Your task to perform on an android device: What is the news today? Image 0: 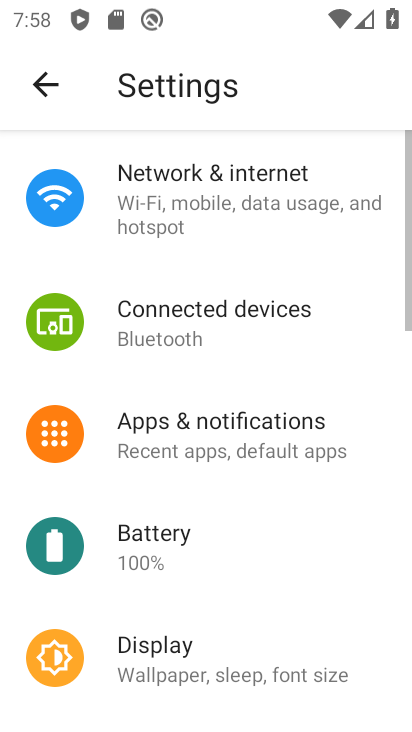
Step 0: press home button
Your task to perform on an android device: What is the news today? Image 1: 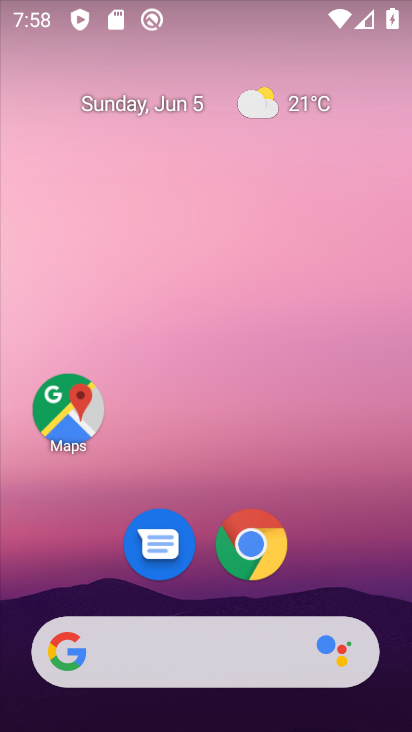
Step 1: task complete